Your task to perform on an android device: turn notification dots off Image 0: 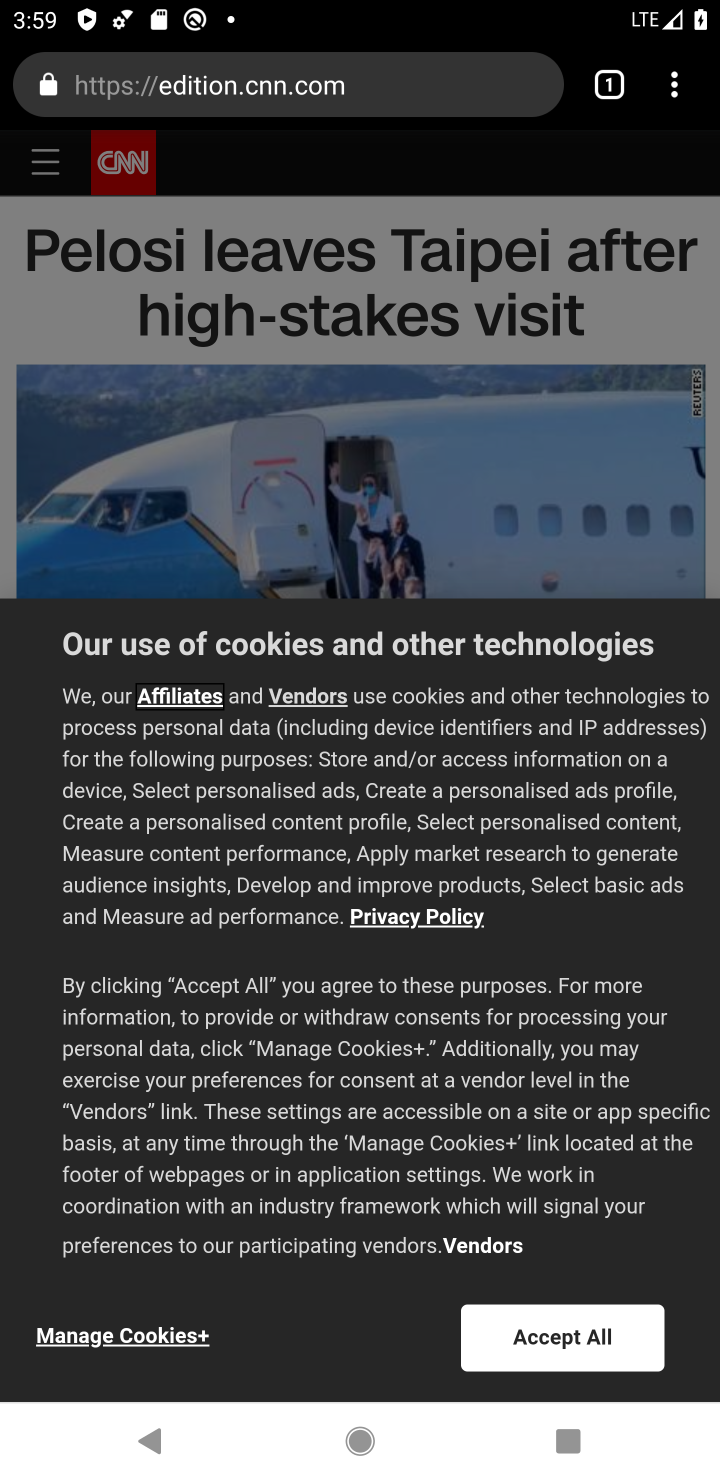
Step 0: press back button
Your task to perform on an android device: turn notification dots off Image 1: 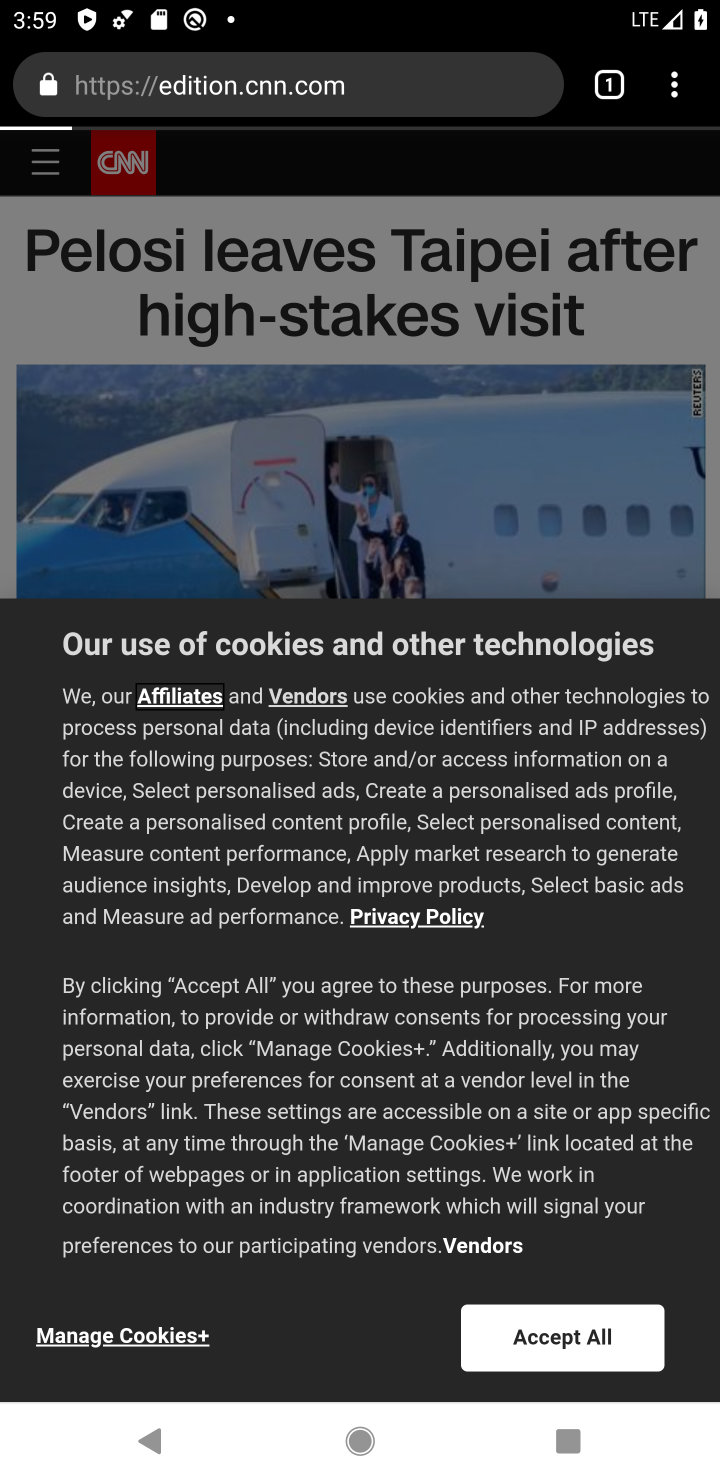
Step 1: press home button
Your task to perform on an android device: turn notification dots off Image 2: 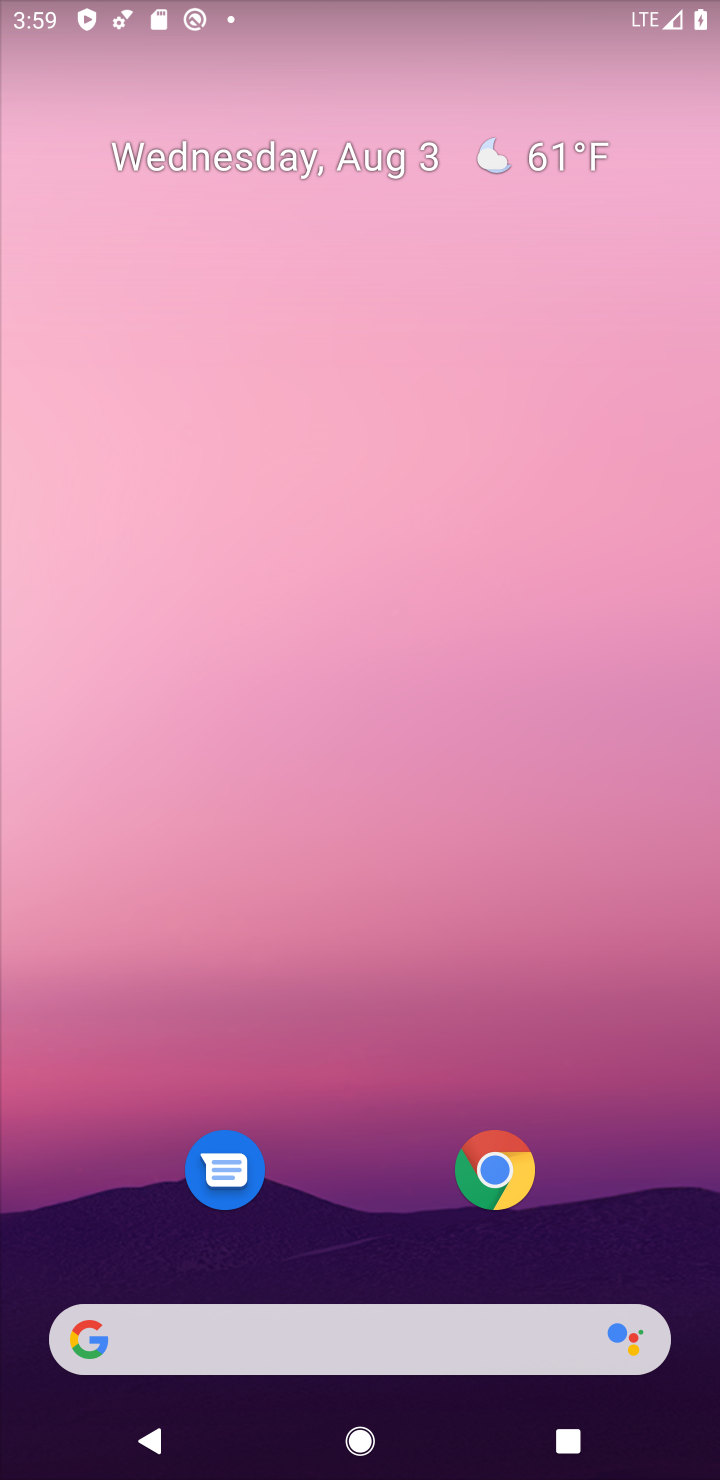
Step 2: press home button
Your task to perform on an android device: turn notification dots off Image 3: 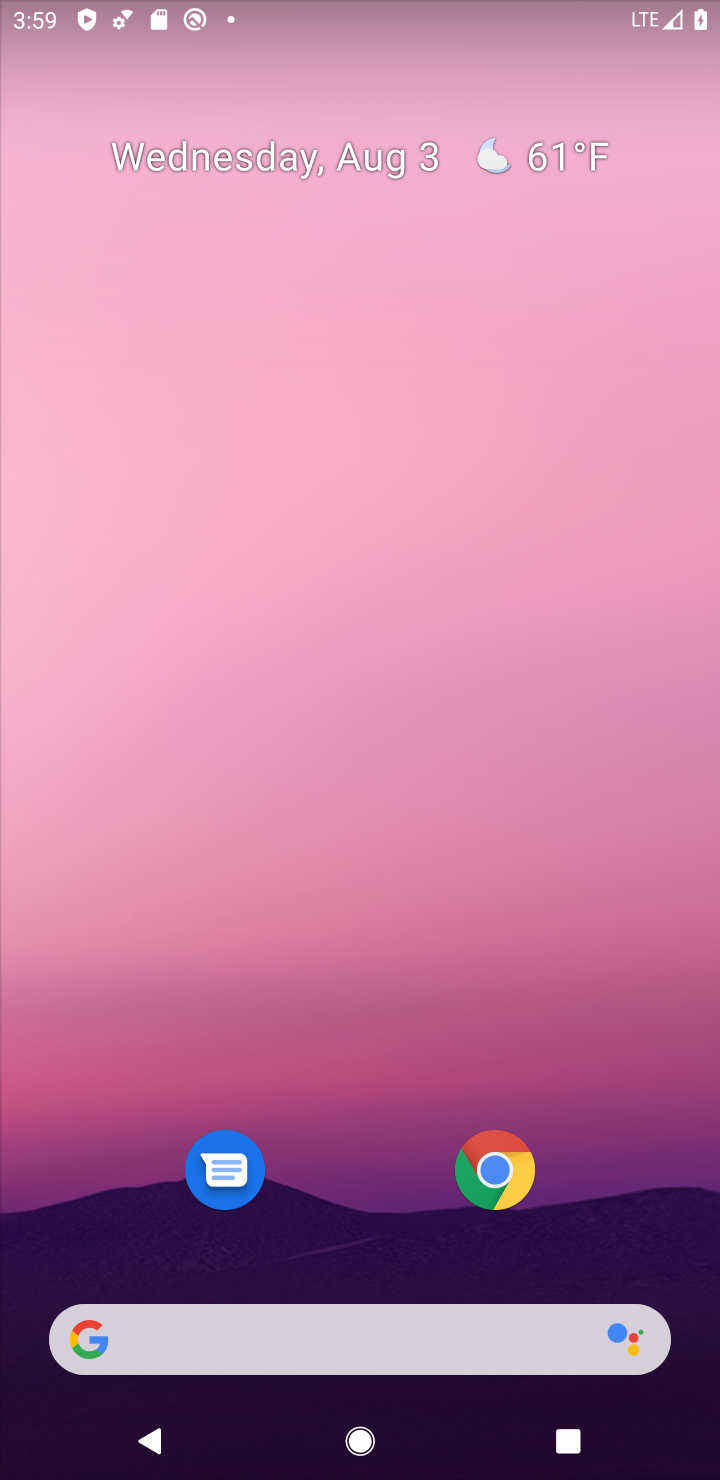
Step 3: drag from (394, 754) to (415, 29)
Your task to perform on an android device: turn notification dots off Image 4: 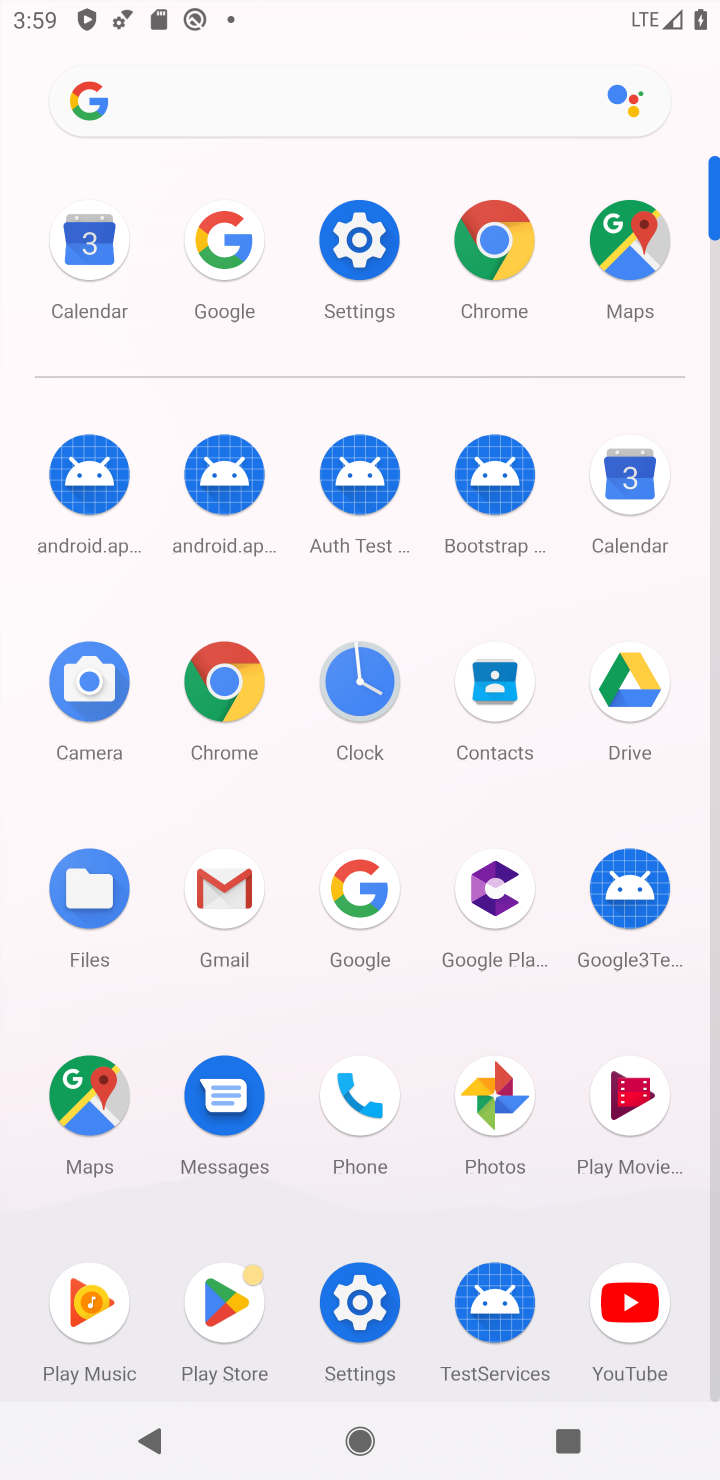
Step 4: click (373, 244)
Your task to perform on an android device: turn notification dots off Image 5: 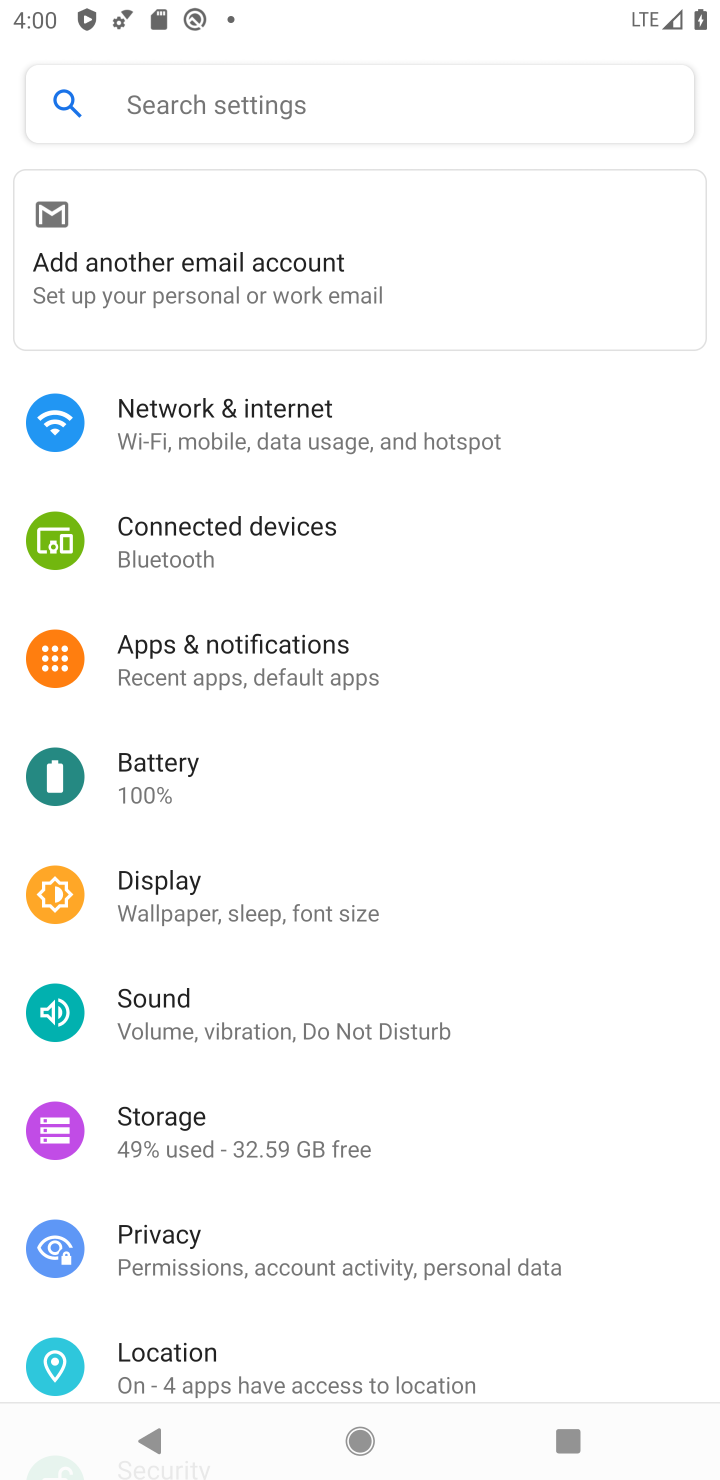
Step 5: click (222, 492)
Your task to perform on an android device: turn notification dots off Image 6: 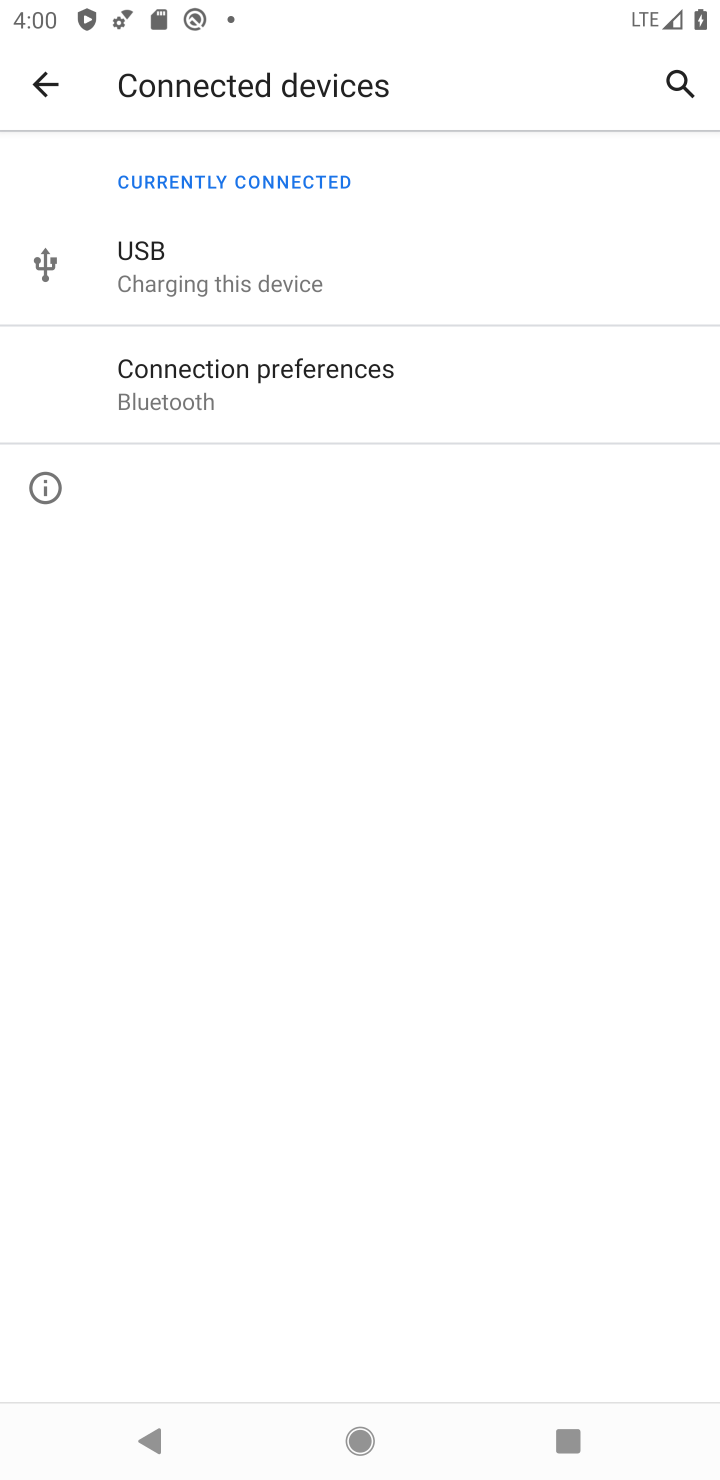
Step 6: click (43, 90)
Your task to perform on an android device: turn notification dots off Image 7: 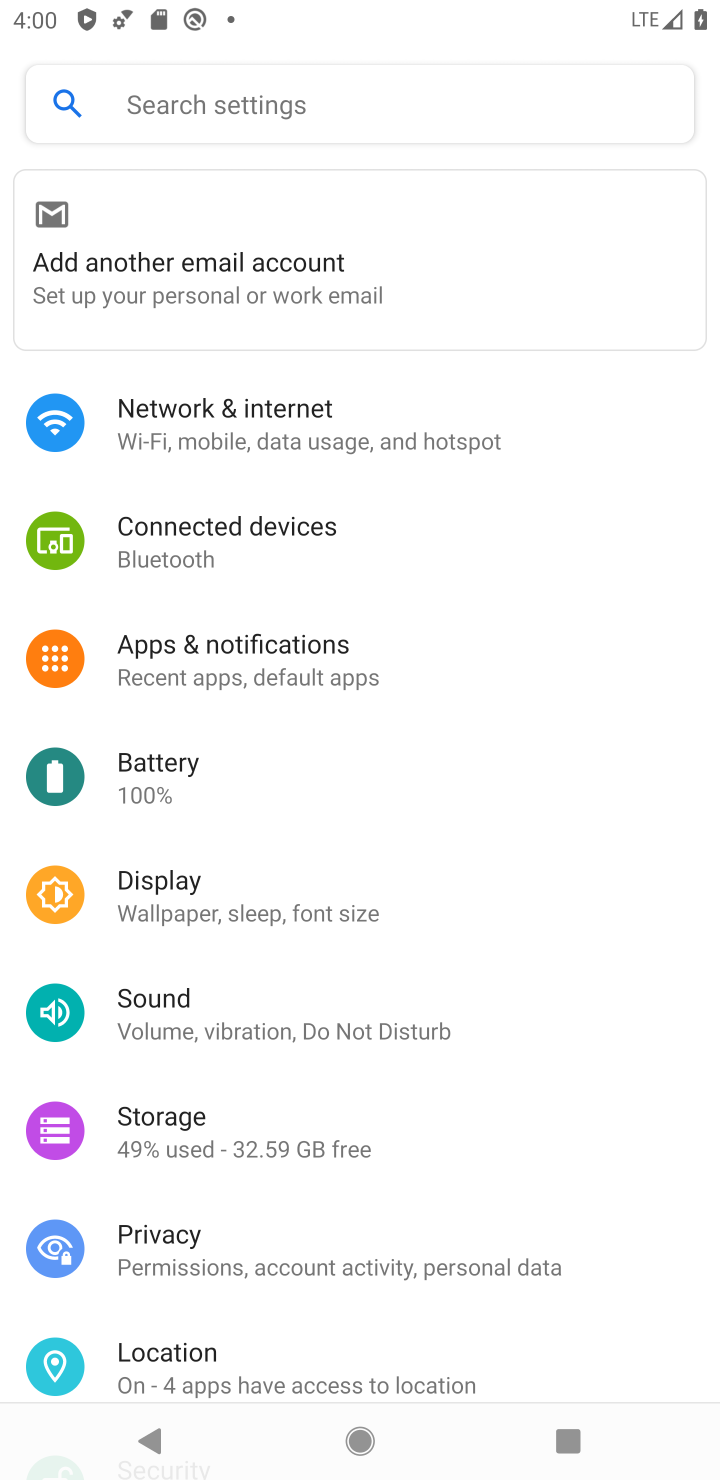
Step 7: click (177, 652)
Your task to perform on an android device: turn notification dots off Image 8: 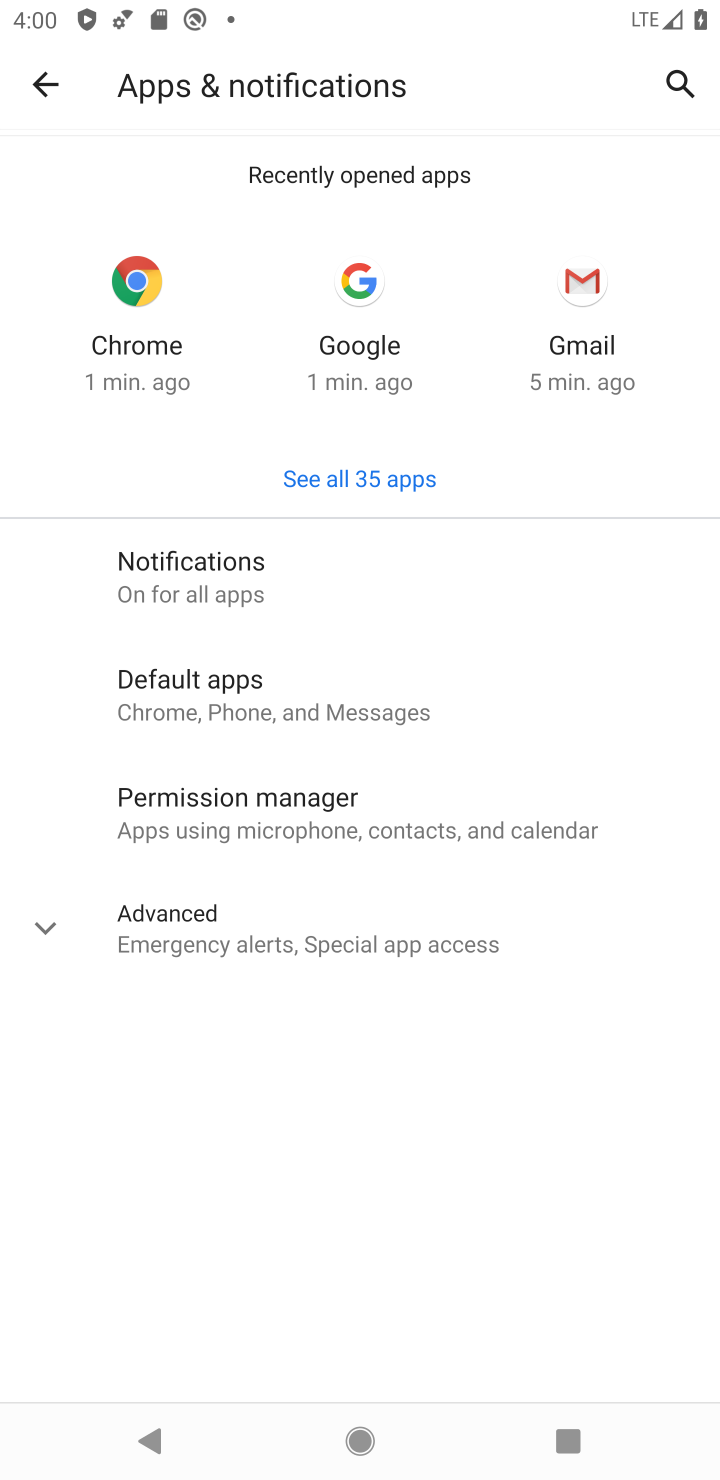
Step 8: click (243, 592)
Your task to perform on an android device: turn notification dots off Image 9: 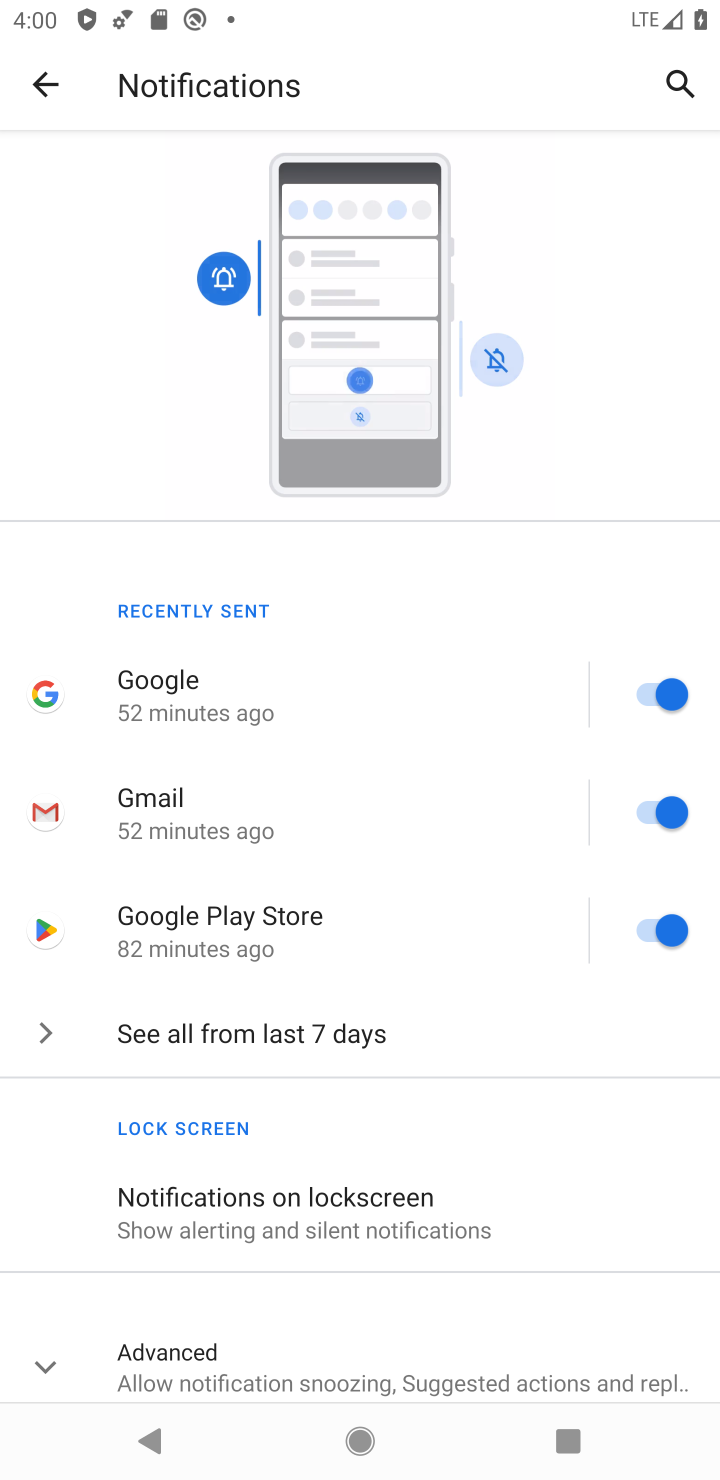
Step 9: click (112, 1355)
Your task to perform on an android device: turn notification dots off Image 10: 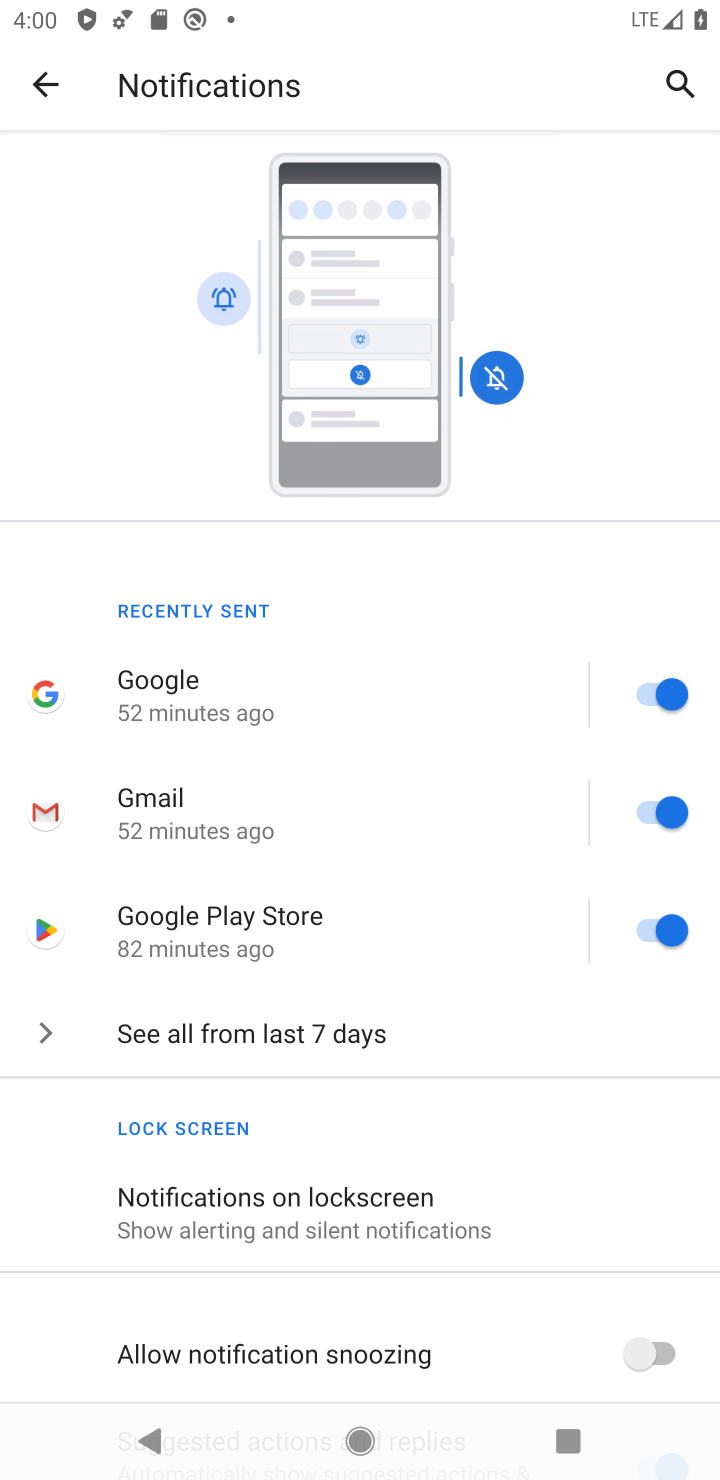
Step 10: drag from (391, 1066) to (441, 810)
Your task to perform on an android device: turn notification dots off Image 11: 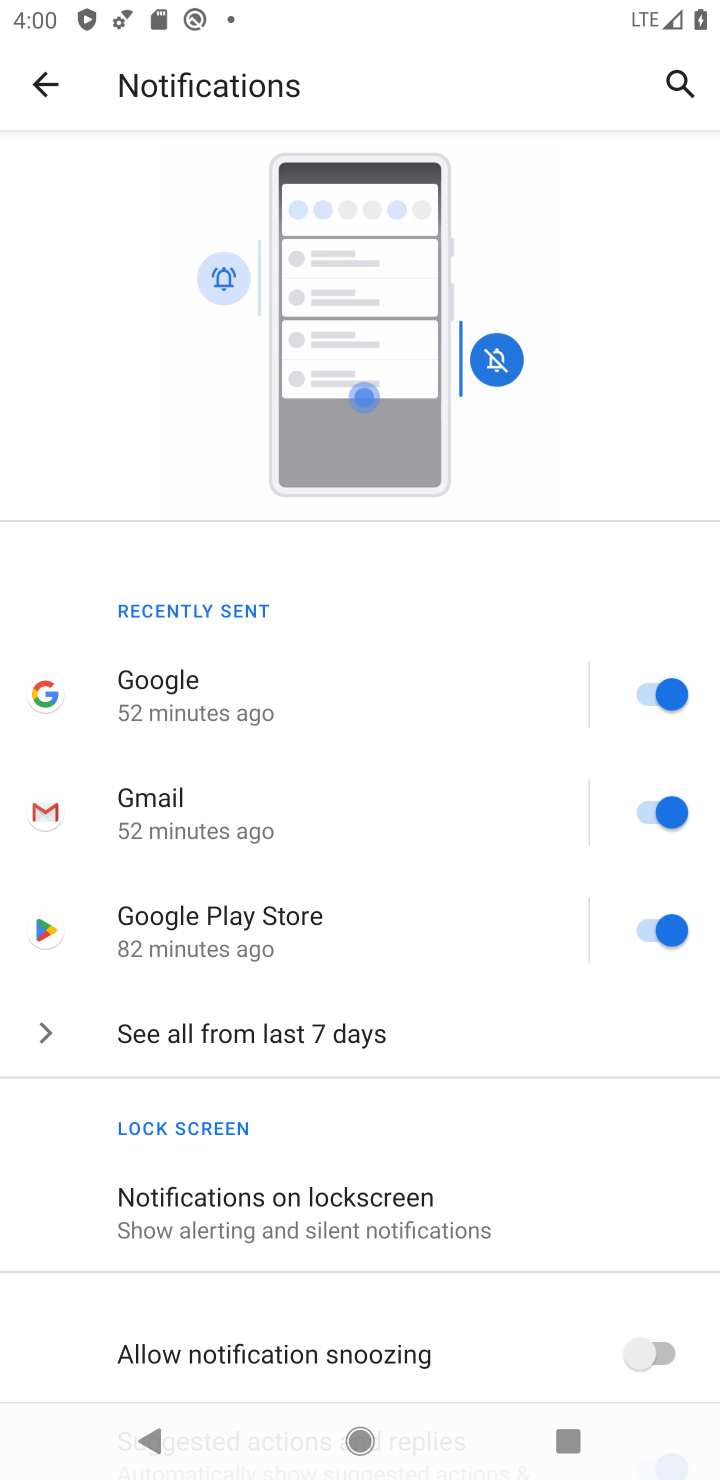
Step 11: drag from (419, 882) to (416, 763)
Your task to perform on an android device: turn notification dots off Image 12: 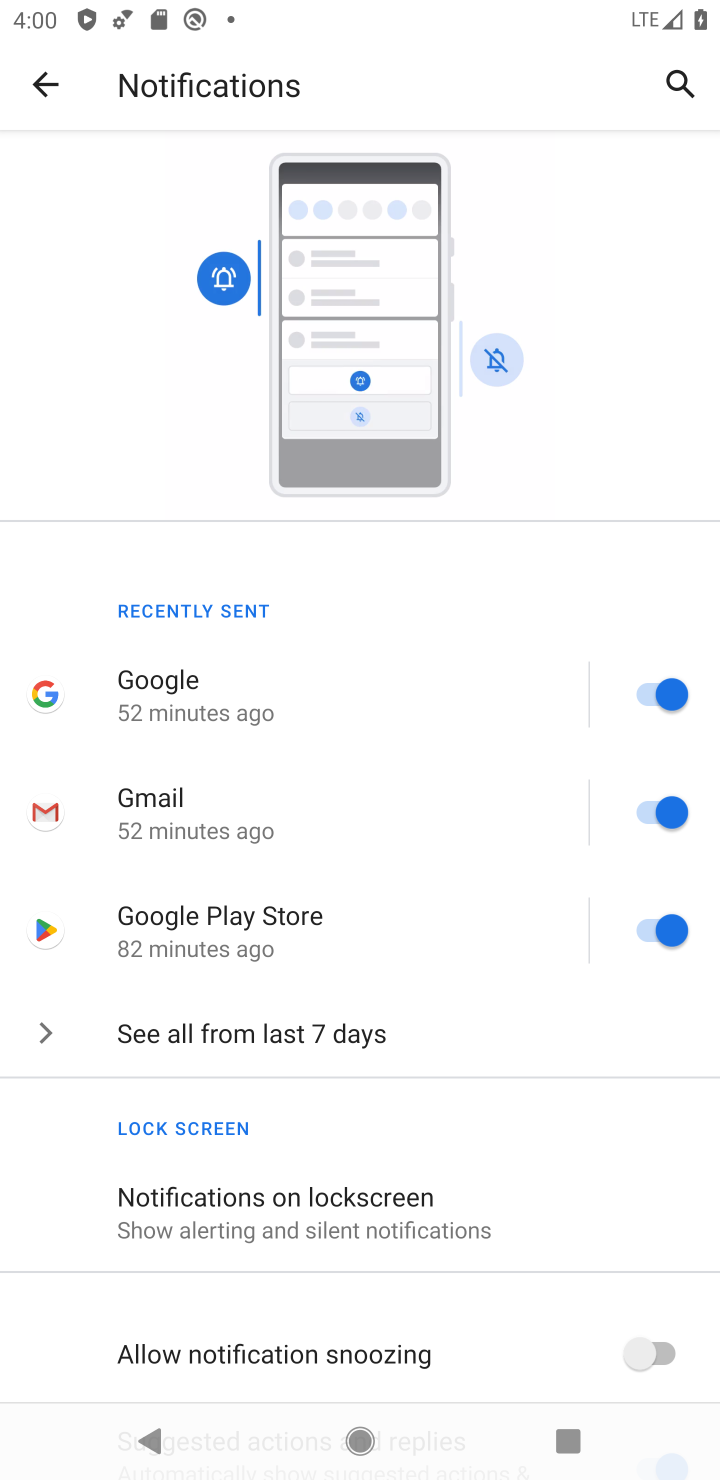
Step 12: click (379, 492)
Your task to perform on an android device: turn notification dots off Image 13: 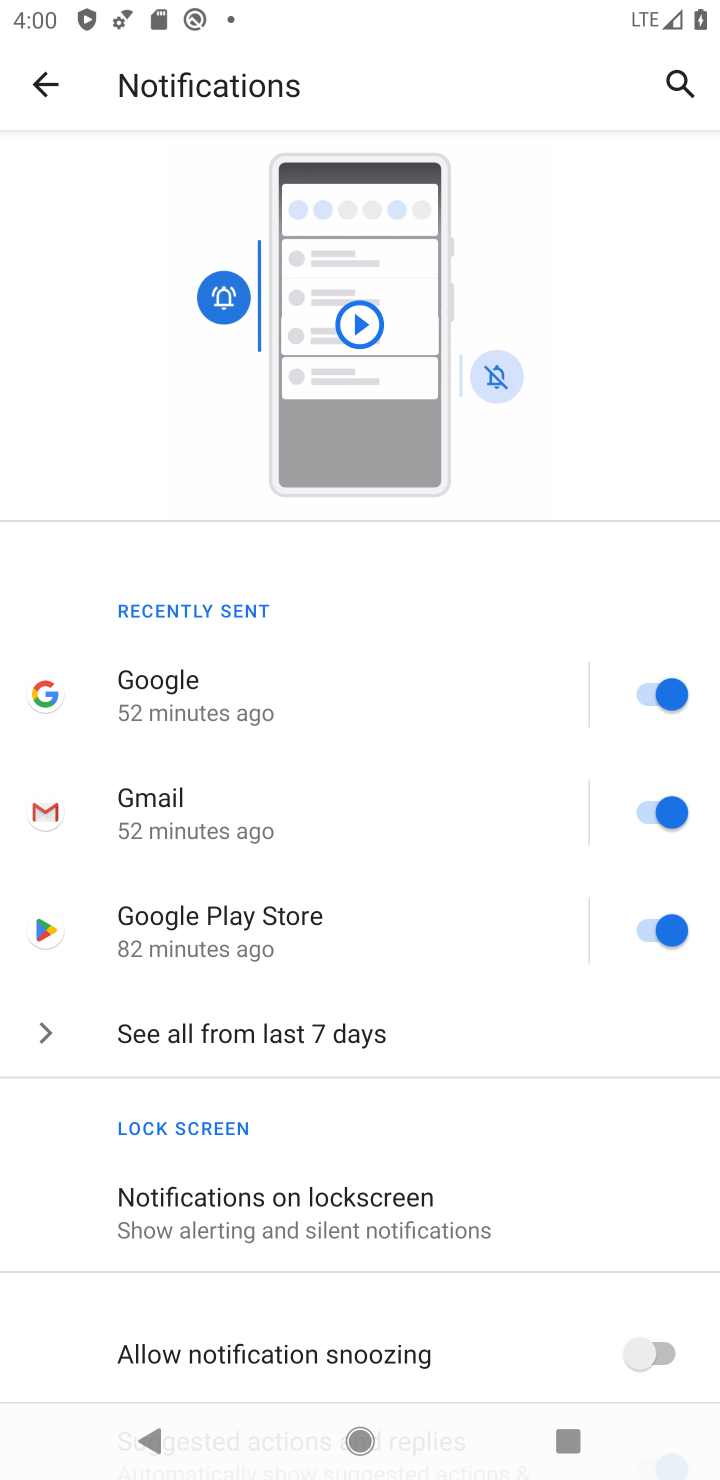
Step 13: drag from (517, 1209) to (480, 417)
Your task to perform on an android device: turn notification dots off Image 14: 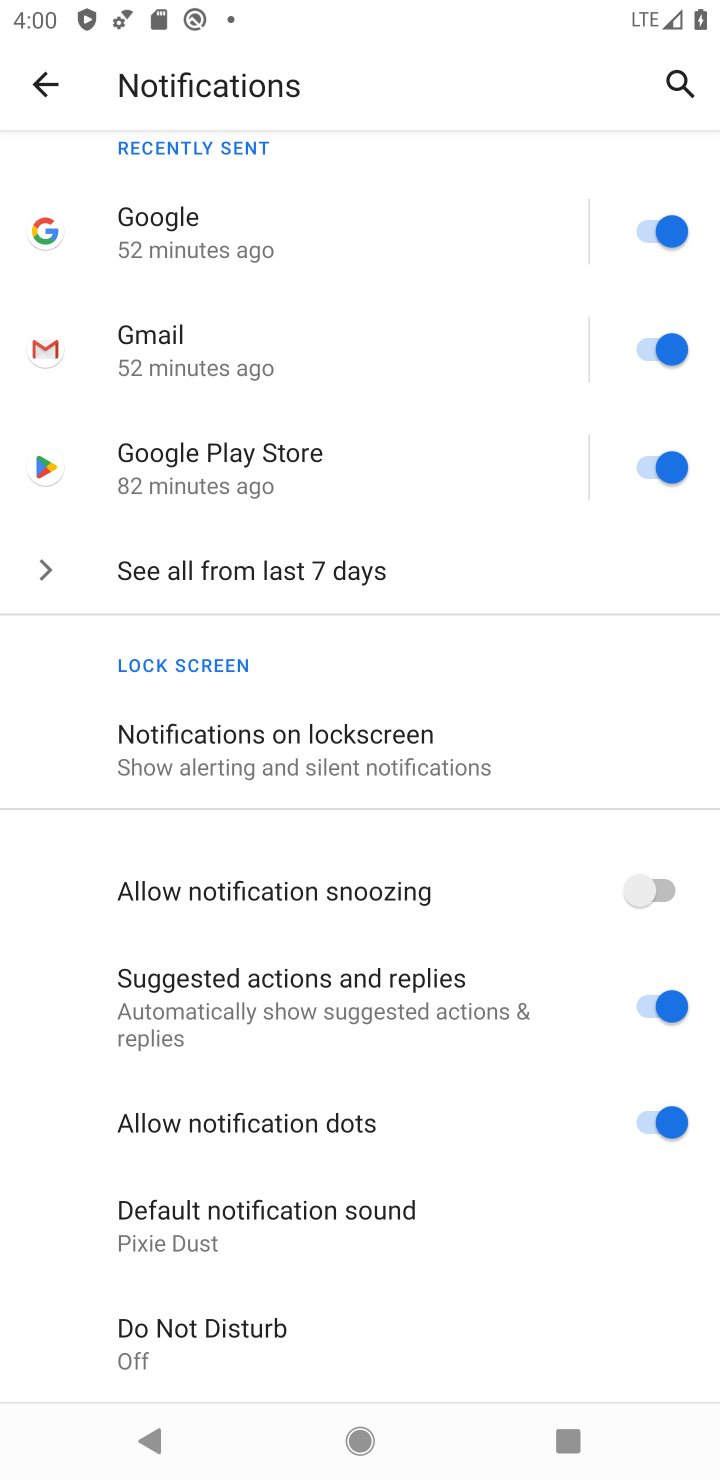
Step 14: click (646, 1122)
Your task to perform on an android device: turn notification dots off Image 15: 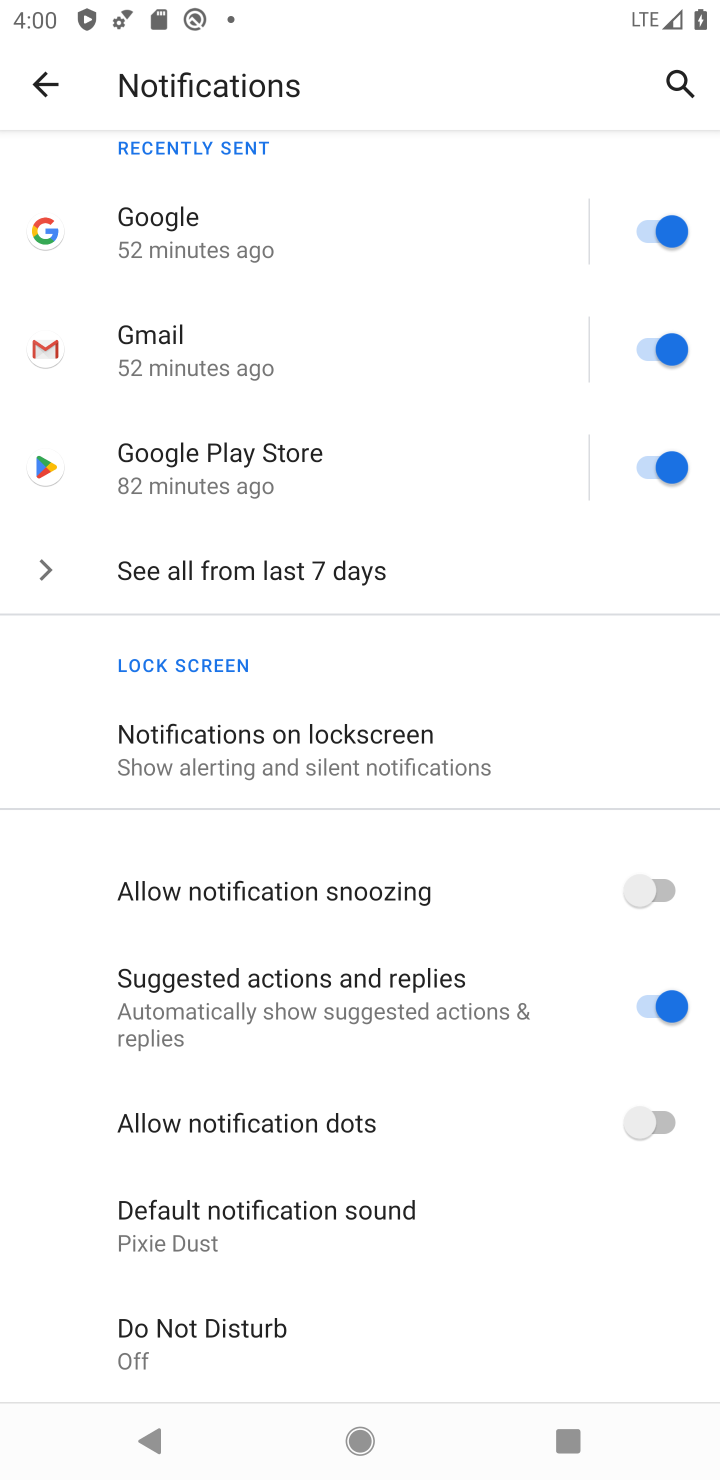
Step 15: task complete